Your task to perform on an android device: toggle javascript in the chrome app Image 0: 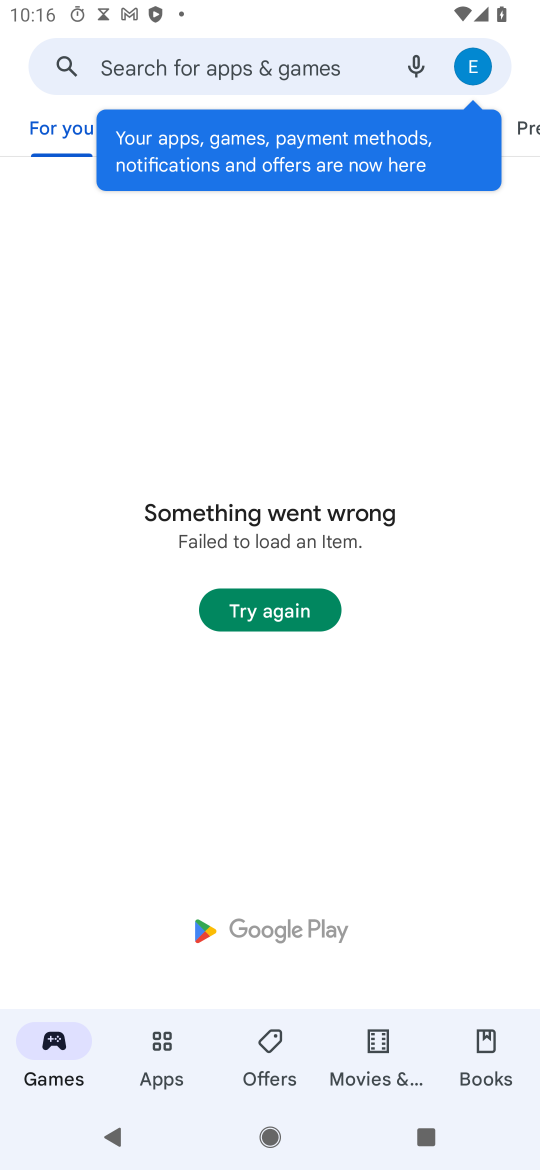
Step 0: press back button
Your task to perform on an android device: toggle javascript in the chrome app Image 1: 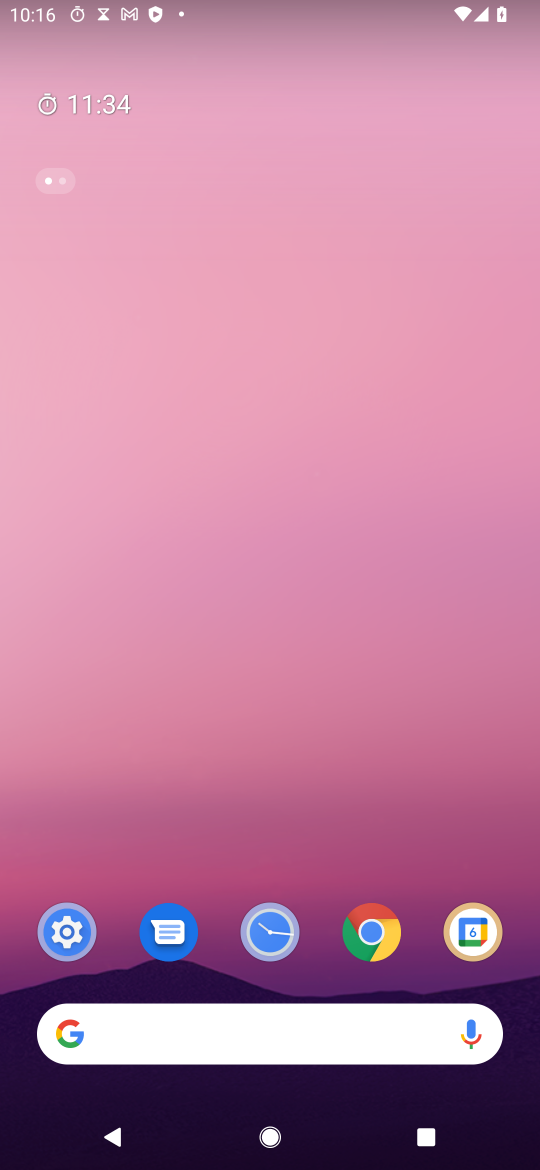
Step 1: click (383, 926)
Your task to perform on an android device: toggle javascript in the chrome app Image 2: 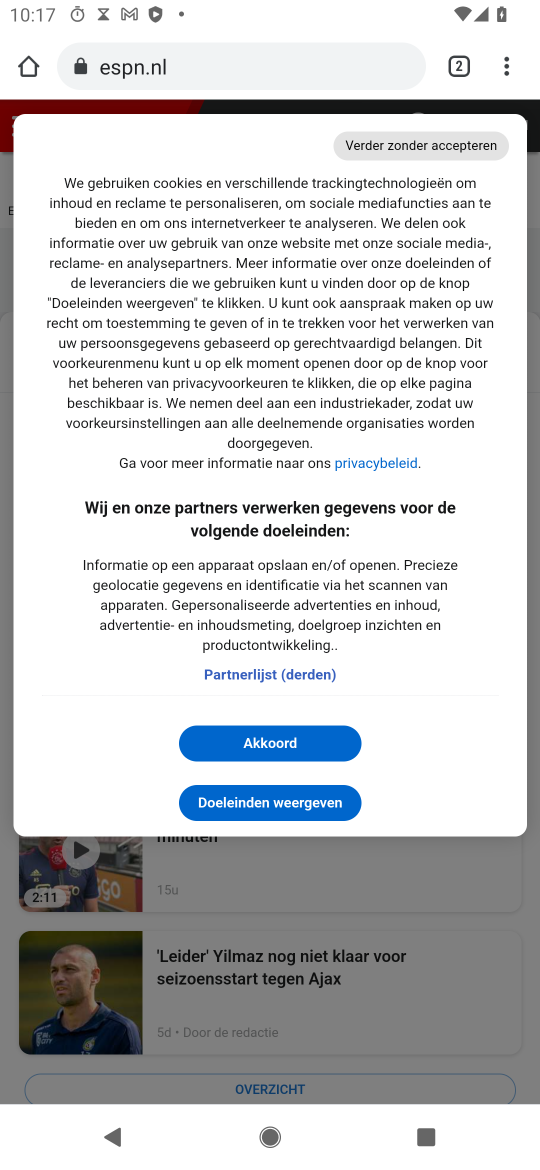
Step 2: click (504, 78)
Your task to perform on an android device: toggle javascript in the chrome app Image 3: 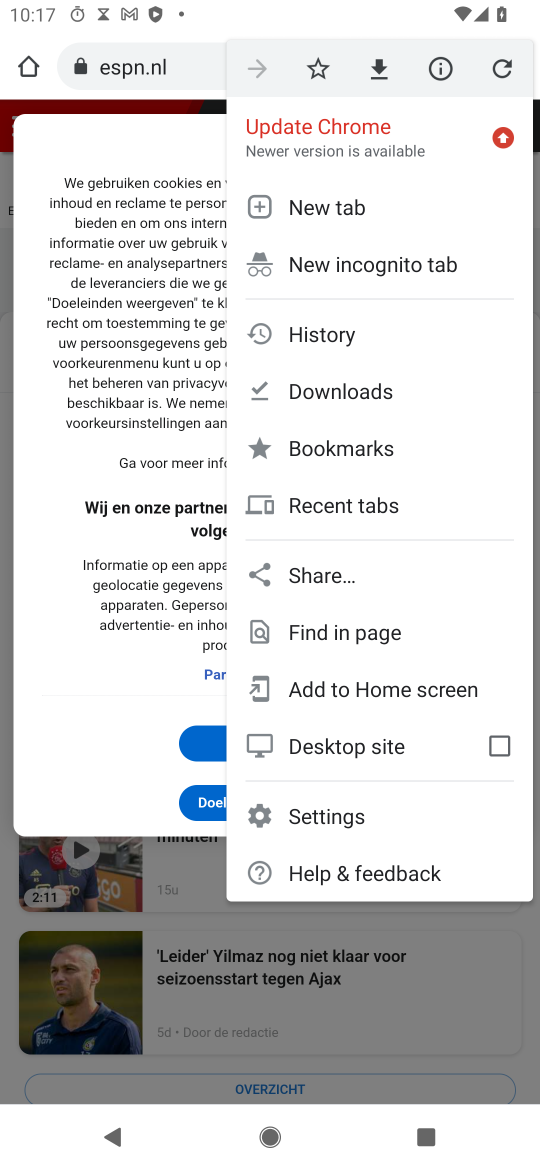
Step 3: click (373, 823)
Your task to perform on an android device: toggle javascript in the chrome app Image 4: 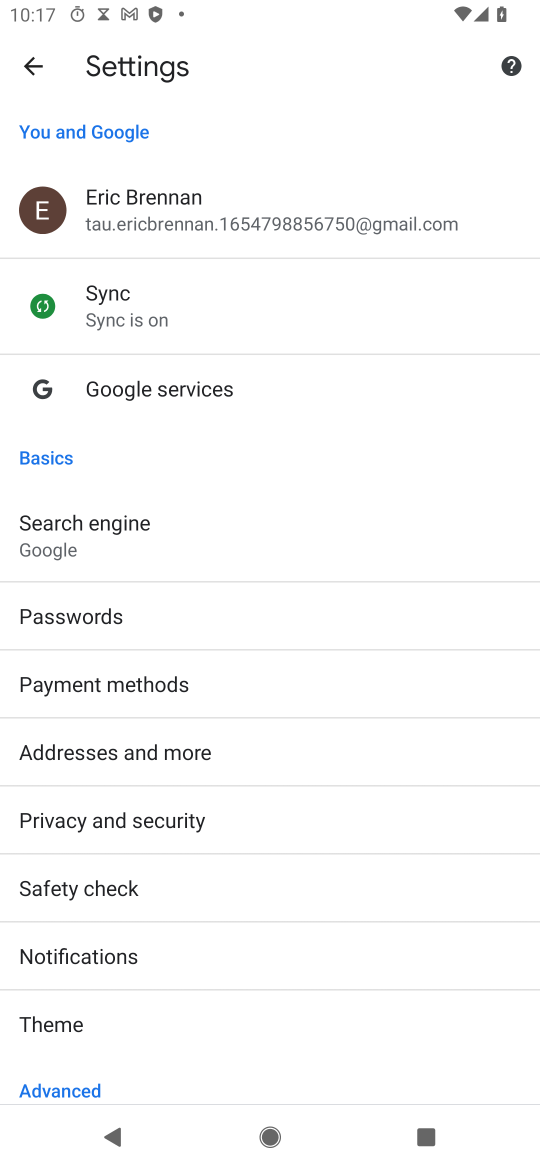
Step 4: drag from (227, 1060) to (157, 649)
Your task to perform on an android device: toggle javascript in the chrome app Image 5: 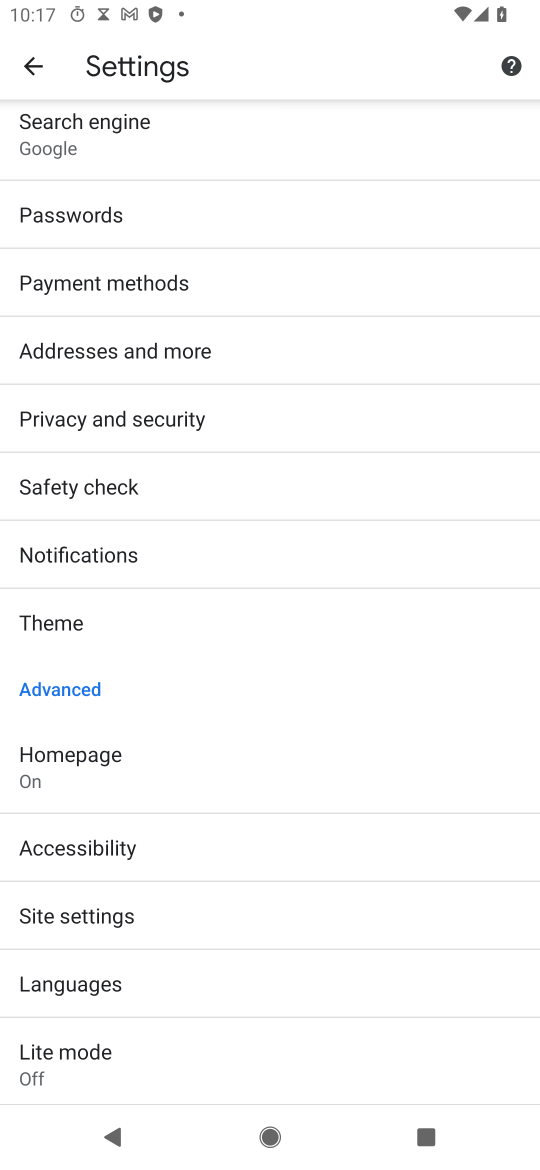
Step 5: drag from (265, 1052) to (236, 569)
Your task to perform on an android device: toggle javascript in the chrome app Image 6: 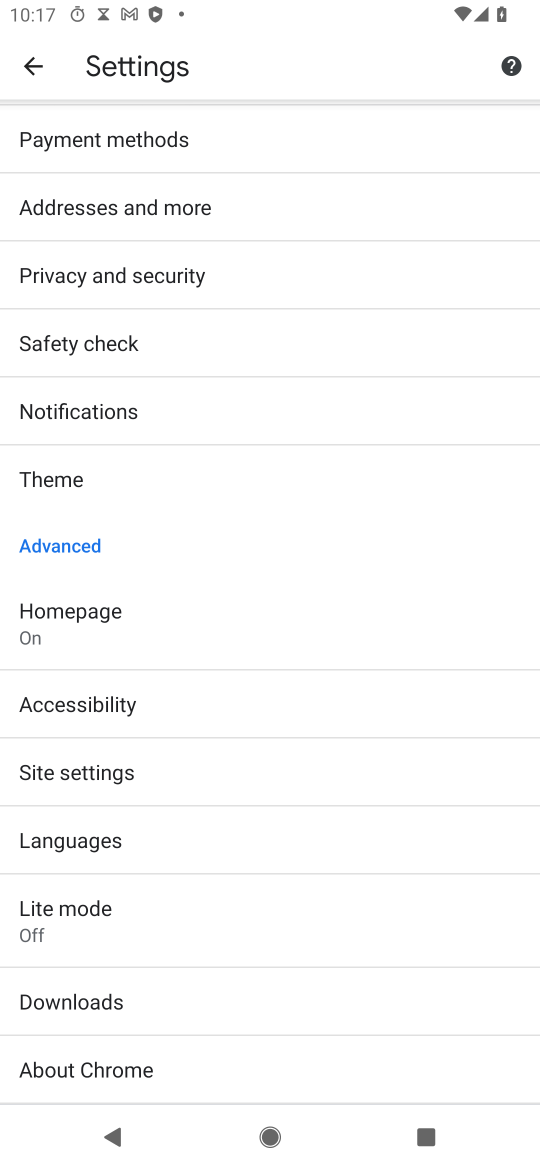
Step 6: click (231, 773)
Your task to perform on an android device: toggle javascript in the chrome app Image 7: 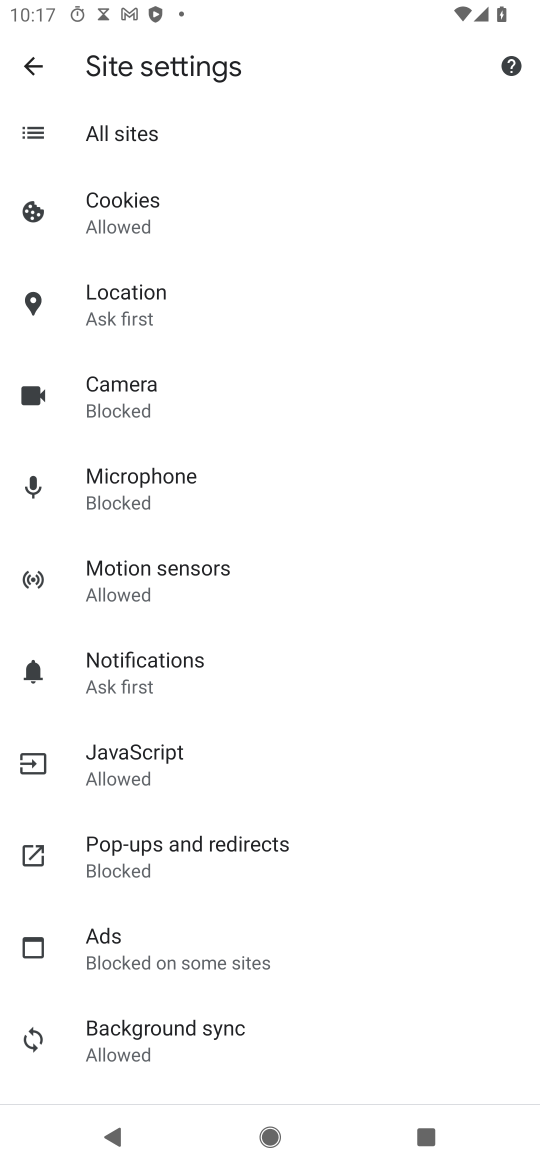
Step 7: click (270, 750)
Your task to perform on an android device: toggle javascript in the chrome app Image 8: 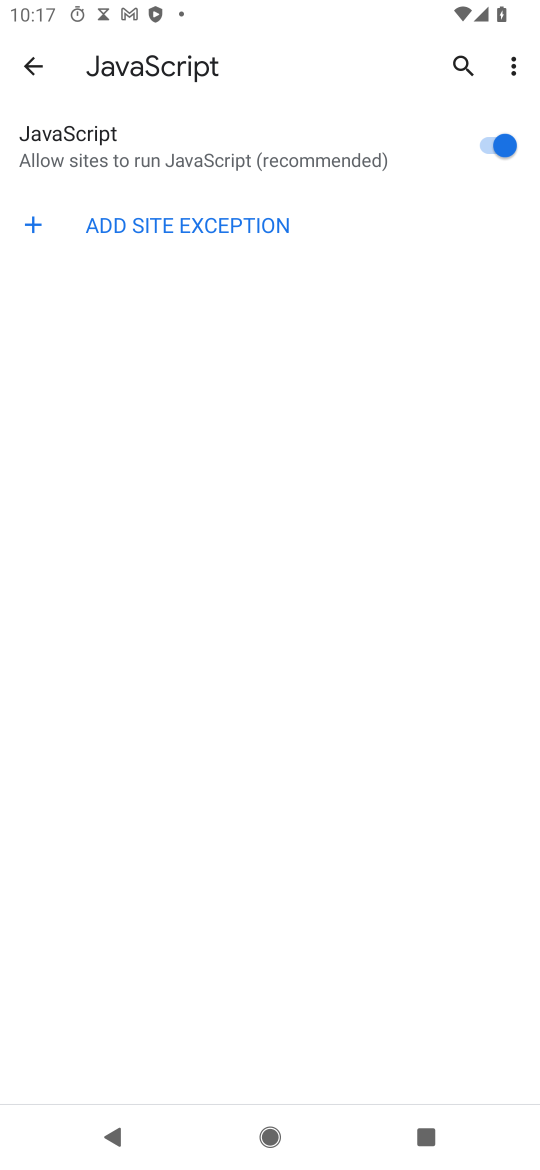
Step 8: click (491, 159)
Your task to perform on an android device: toggle javascript in the chrome app Image 9: 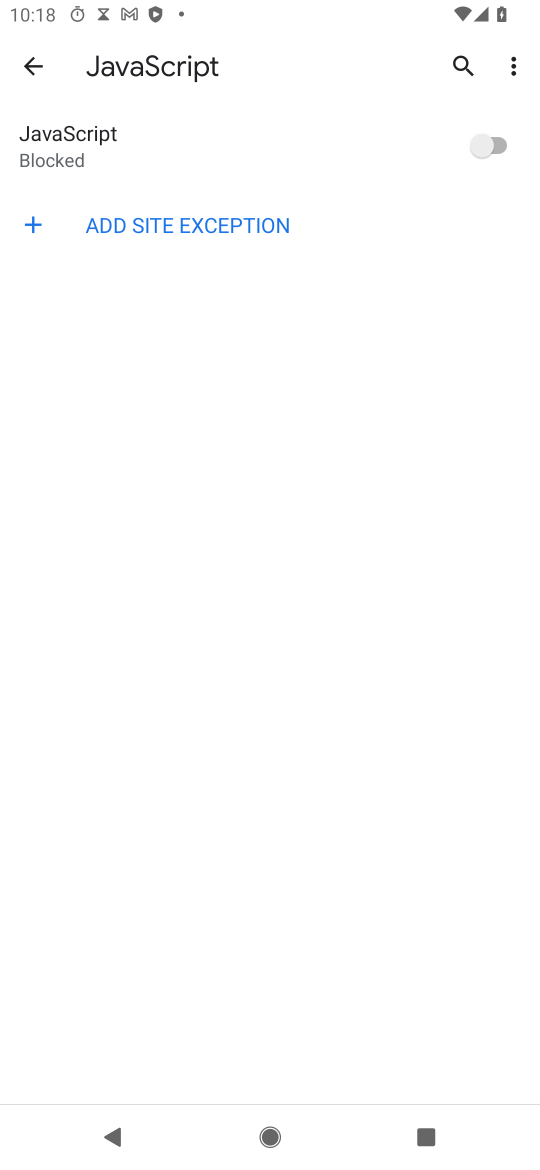
Step 9: task complete